Your task to perform on an android device: check data usage Image 0: 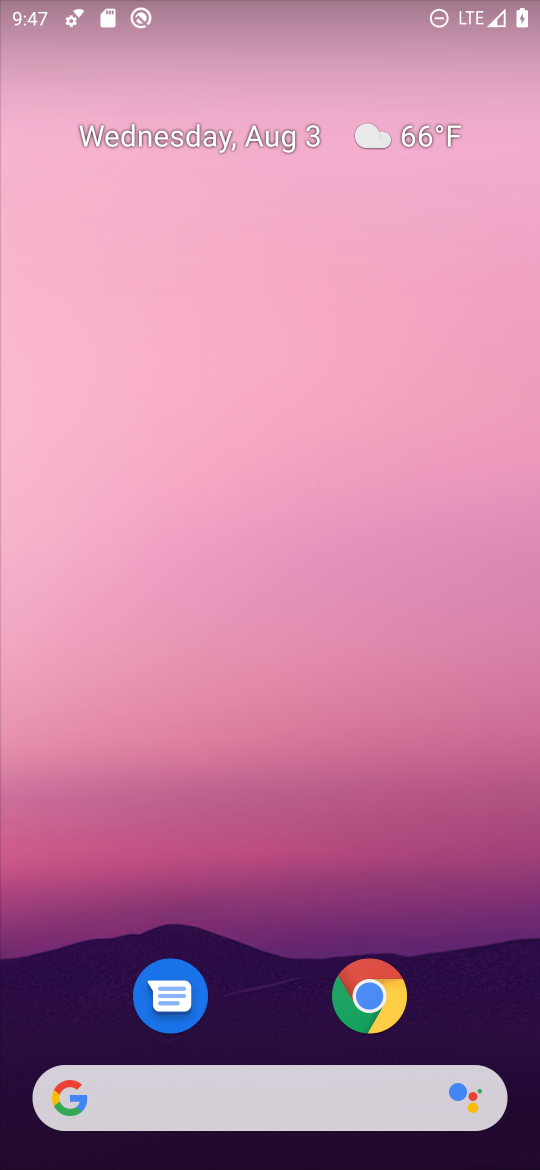
Step 0: drag from (281, 886) to (351, 8)
Your task to perform on an android device: check data usage Image 1: 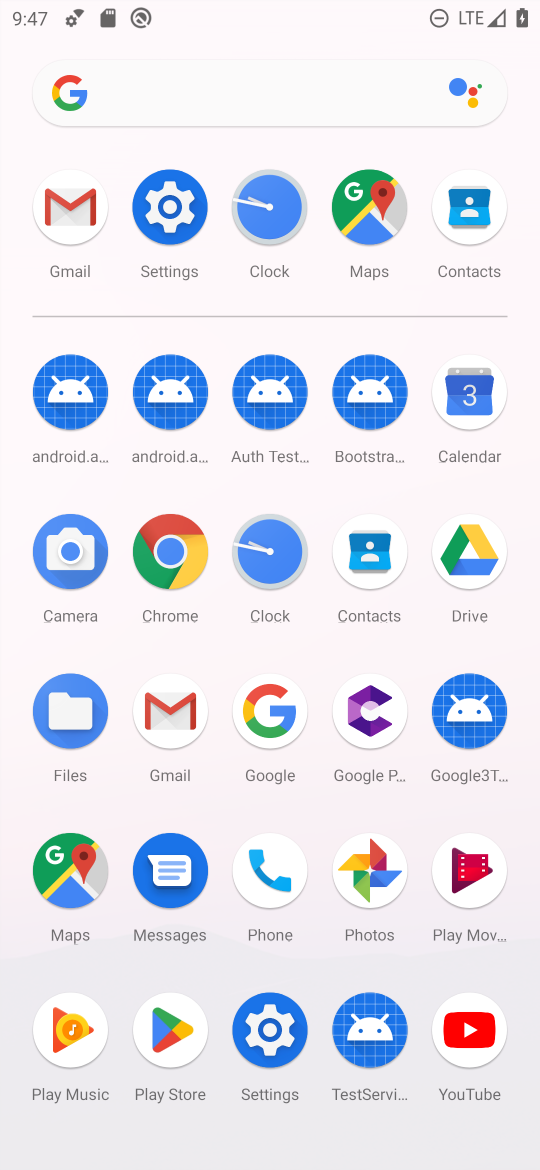
Step 1: click (177, 203)
Your task to perform on an android device: check data usage Image 2: 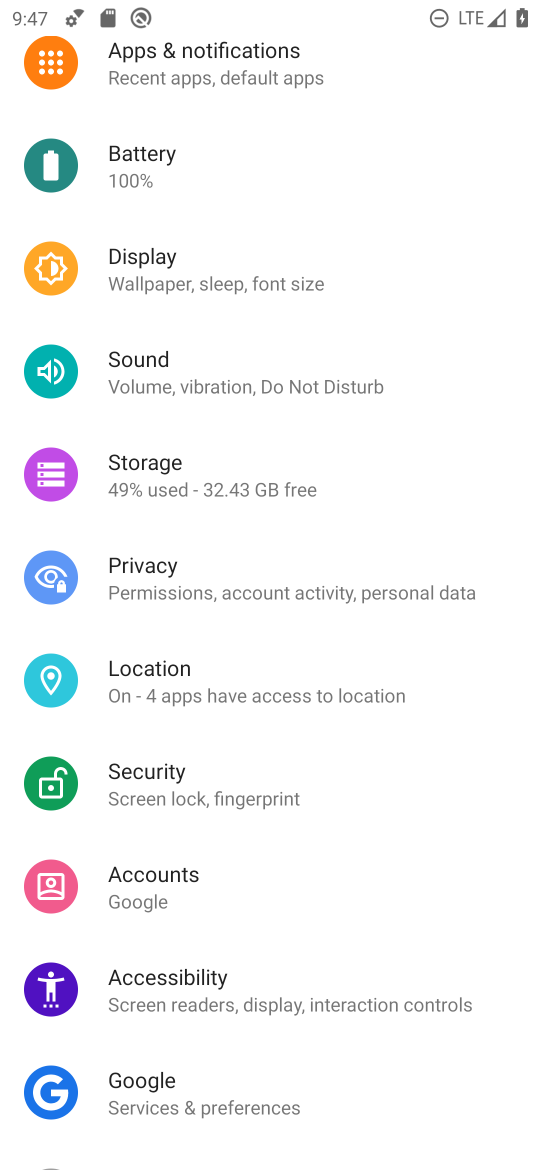
Step 2: drag from (258, 178) to (351, 843)
Your task to perform on an android device: check data usage Image 3: 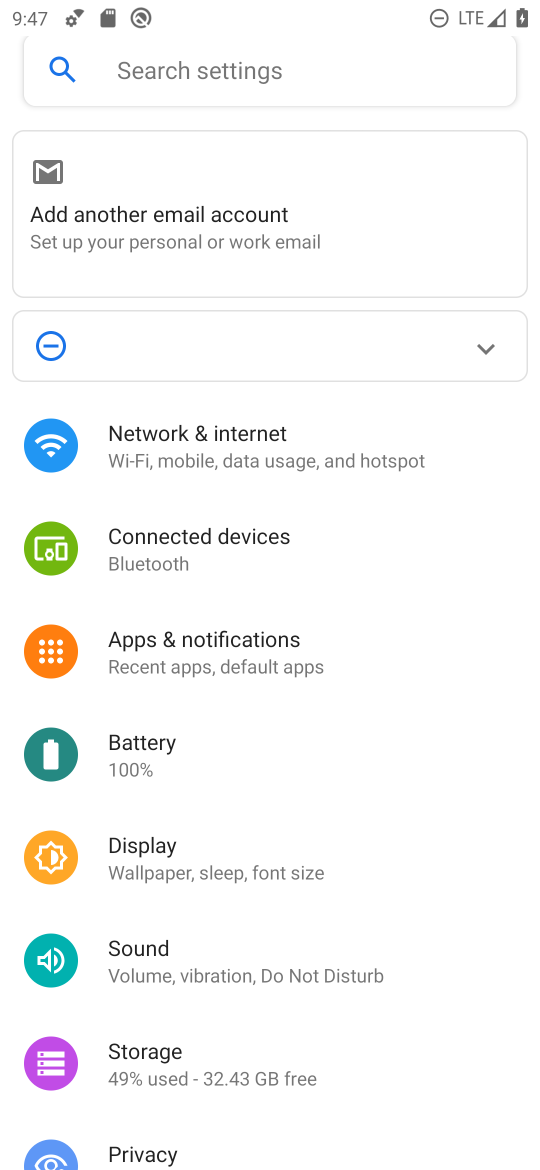
Step 3: click (233, 449)
Your task to perform on an android device: check data usage Image 4: 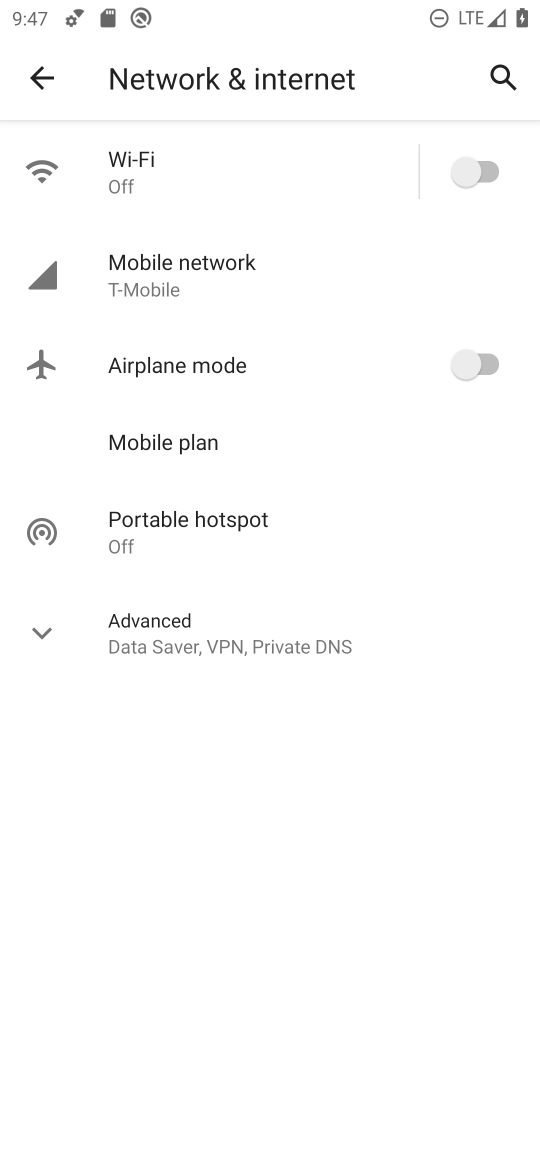
Step 4: click (215, 263)
Your task to perform on an android device: check data usage Image 5: 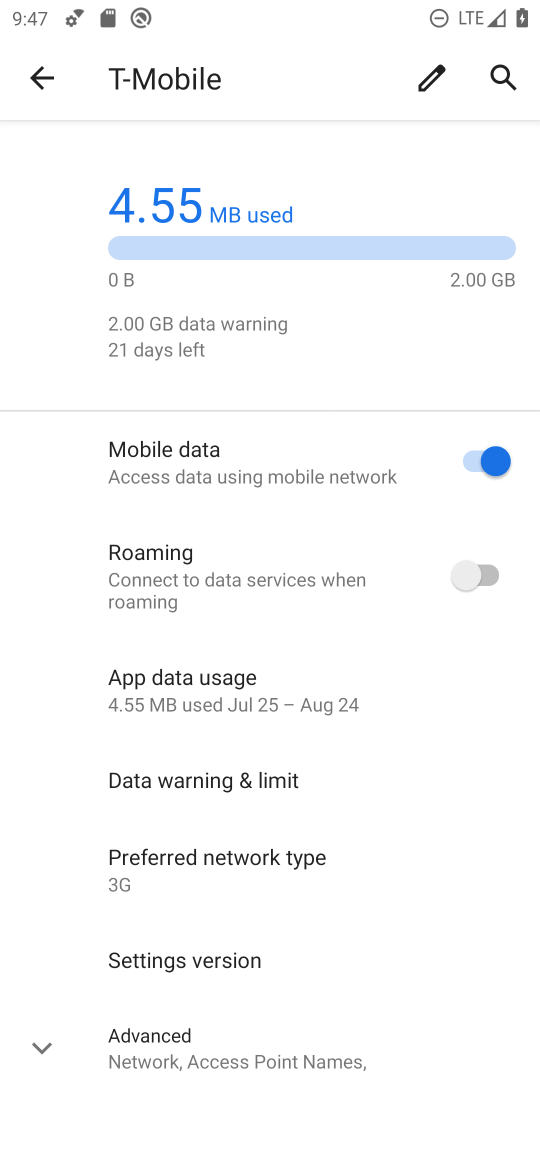
Step 5: task complete